Your task to perform on an android device: make emails show in primary in the gmail app Image 0: 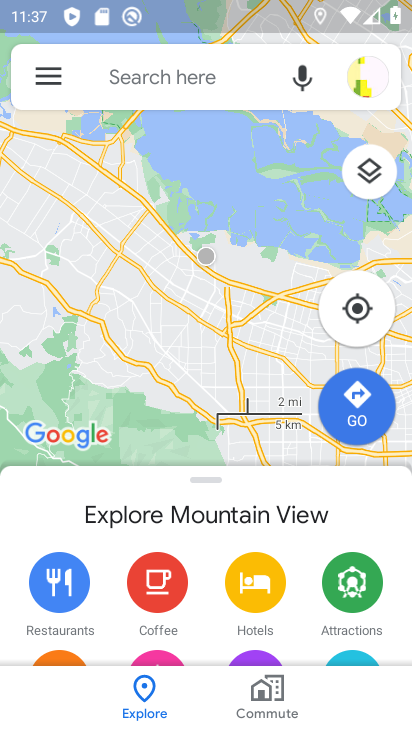
Step 0: press home button
Your task to perform on an android device: make emails show in primary in the gmail app Image 1: 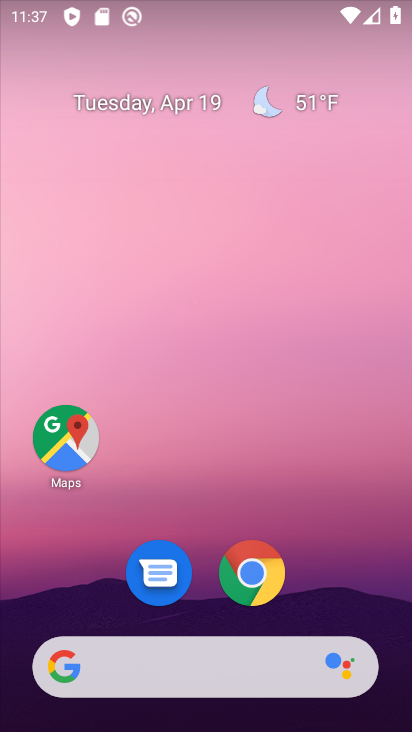
Step 1: drag from (338, 605) to (299, 143)
Your task to perform on an android device: make emails show in primary in the gmail app Image 2: 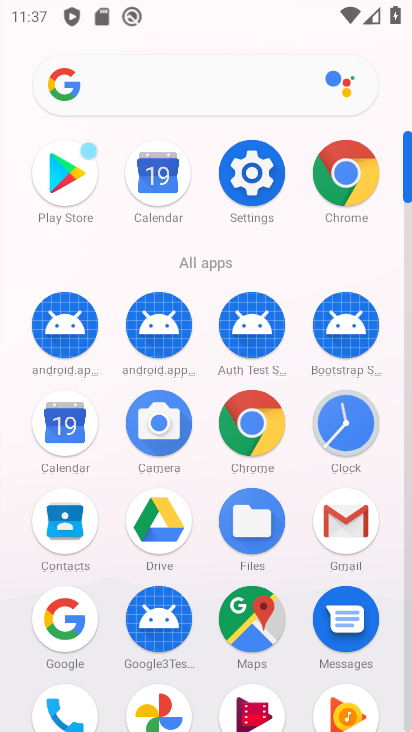
Step 2: click (333, 534)
Your task to perform on an android device: make emails show in primary in the gmail app Image 3: 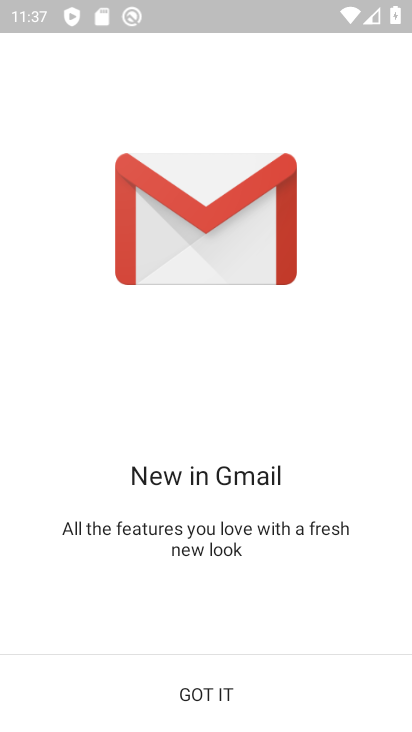
Step 3: click (188, 693)
Your task to perform on an android device: make emails show in primary in the gmail app Image 4: 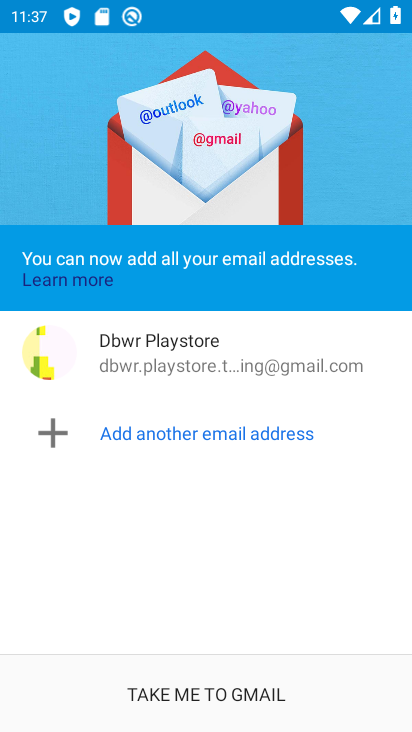
Step 4: click (188, 693)
Your task to perform on an android device: make emails show in primary in the gmail app Image 5: 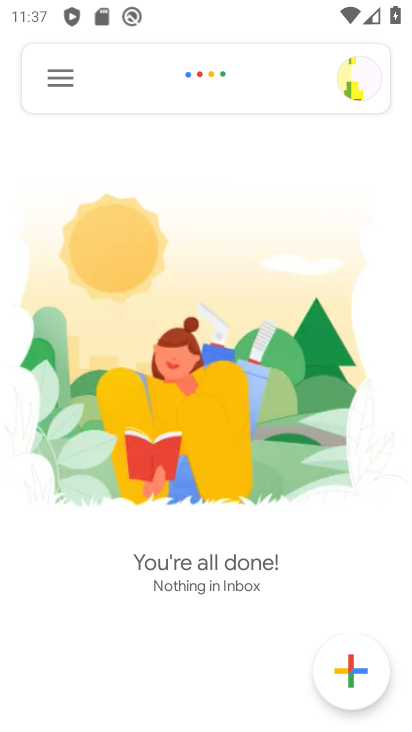
Step 5: click (52, 78)
Your task to perform on an android device: make emails show in primary in the gmail app Image 6: 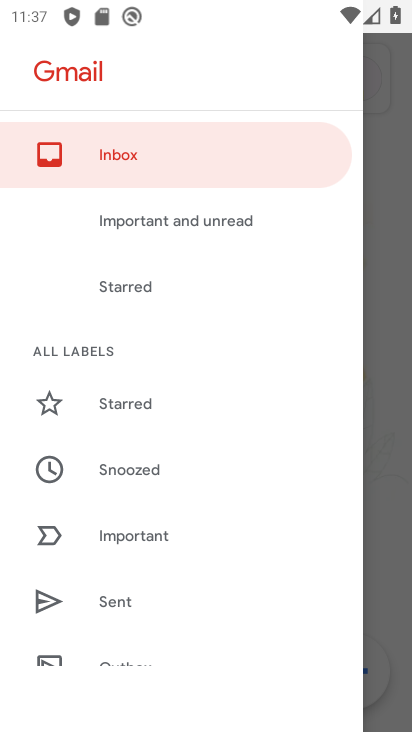
Step 6: drag from (134, 603) to (125, 210)
Your task to perform on an android device: make emails show in primary in the gmail app Image 7: 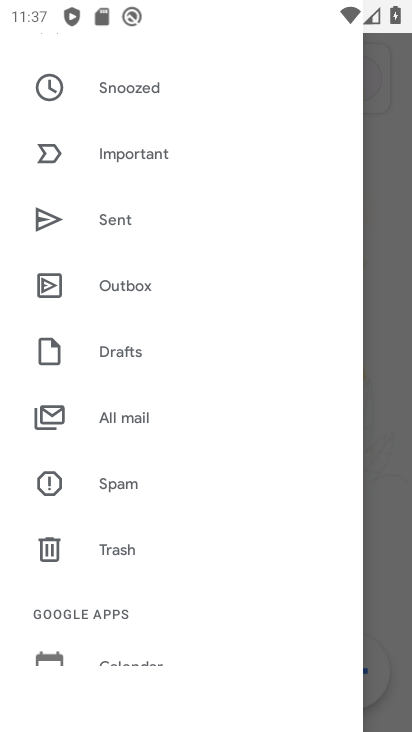
Step 7: drag from (103, 604) to (114, 184)
Your task to perform on an android device: make emails show in primary in the gmail app Image 8: 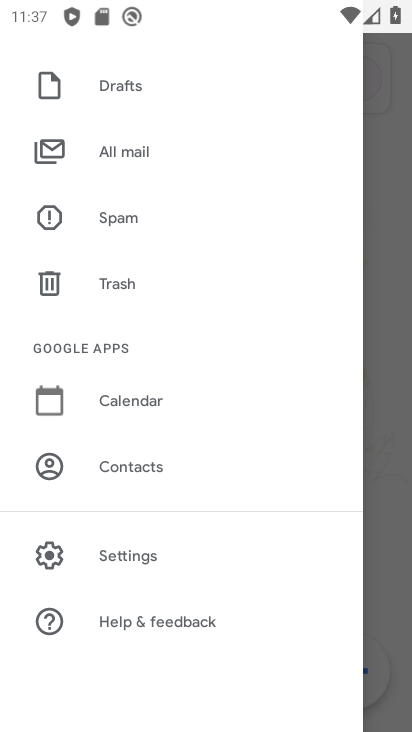
Step 8: click (118, 559)
Your task to perform on an android device: make emails show in primary in the gmail app Image 9: 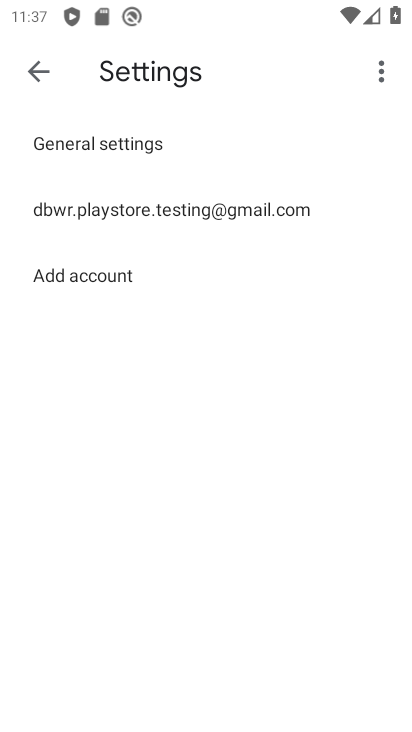
Step 9: click (93, 211)
Your task to perform on an android device: make emails show in primary in the gmail app Image 10: 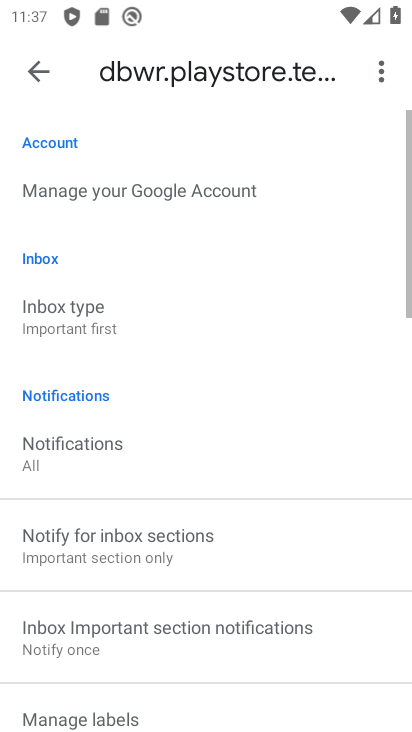
Step 10: click (103, 331)
Your task to perform on an android device: make emails show in primary in the gmail app Image 11: 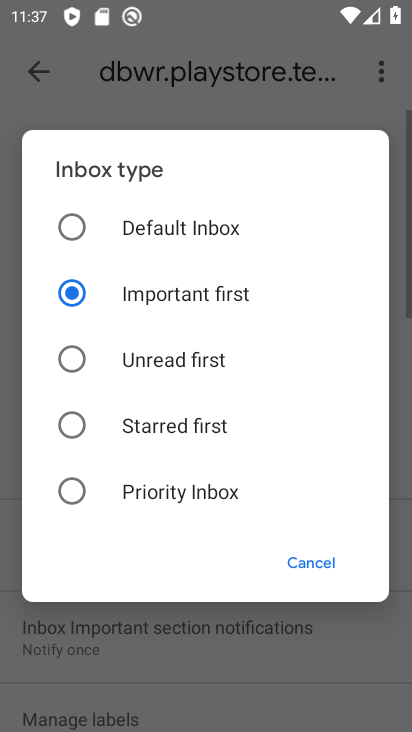
Step 11: click (171, 234)
Your task to perform on an android device: make emails show in primary in the gmail app Image 12: 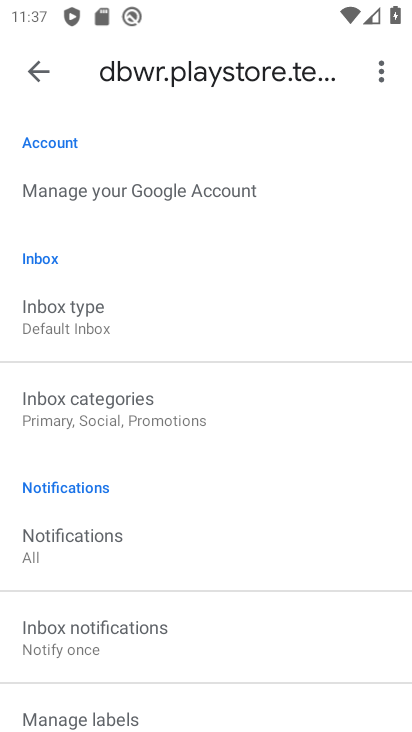
Step 12: press back button
Your task to perform on an android device: make emails show in primary in the gmail app Image 13: 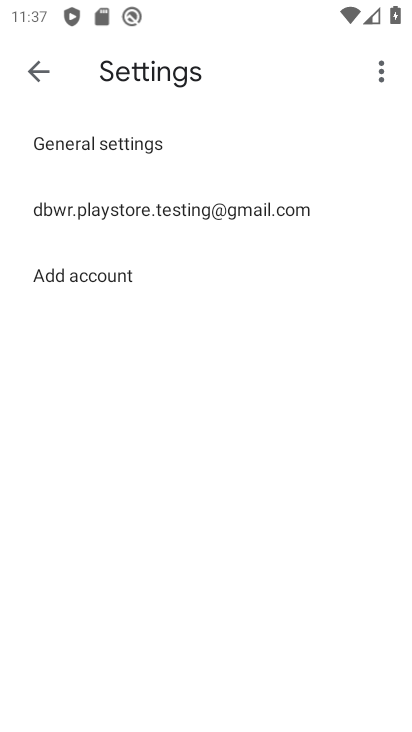
Step 13: press back button
Your task to perform on an android device: make emails show in primary in the gmail app Image 14: 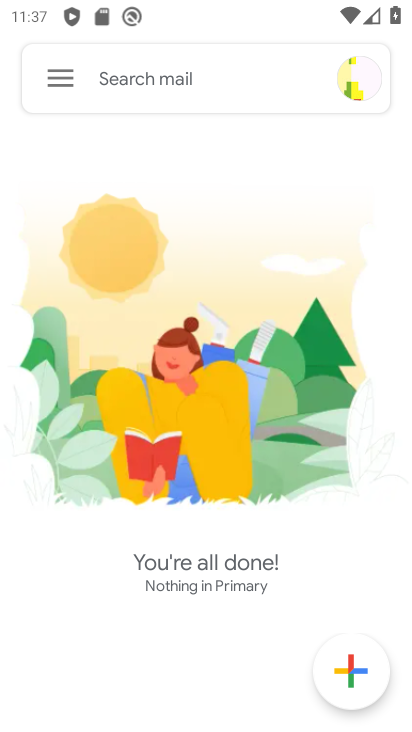
Step 14: click (59, 82)
Your task to perform on an android device: make emails show in primary in the gmail app Image 15: 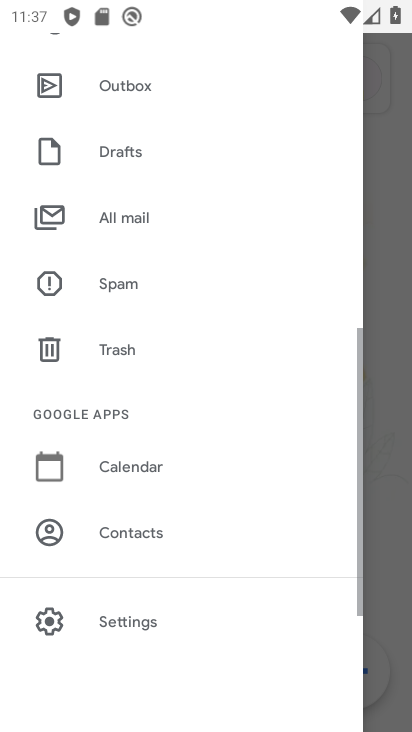
Step 15: drag from (222, 217) to (246, 610)
Your task to perform on an android device: make emails show in primary in the gmail app Image 16: 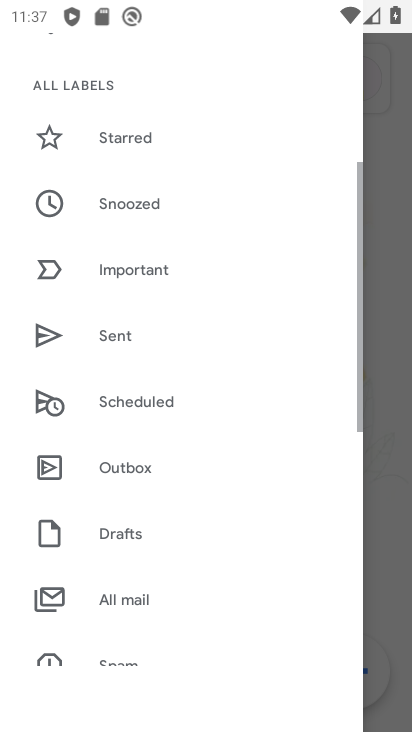
Step 16: drag from (216, 207) to (258, 670)
Your task to perform on an android device: make emails show in primary in the gmail app Image 17: 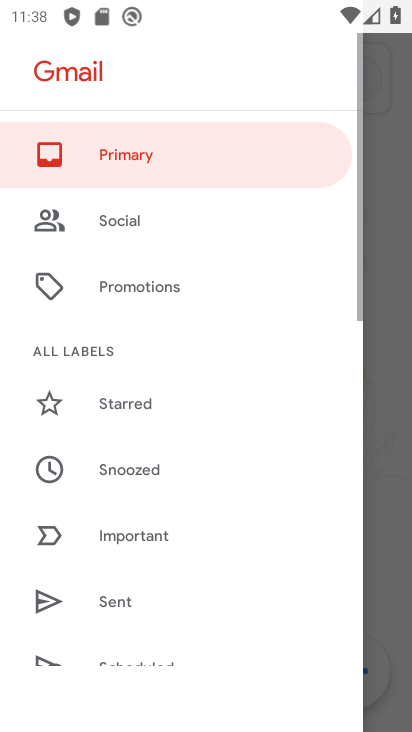
Step 17: click (178, 155)
Your task to perform on an android device: make emails show in primary in the gmail app Image 18: 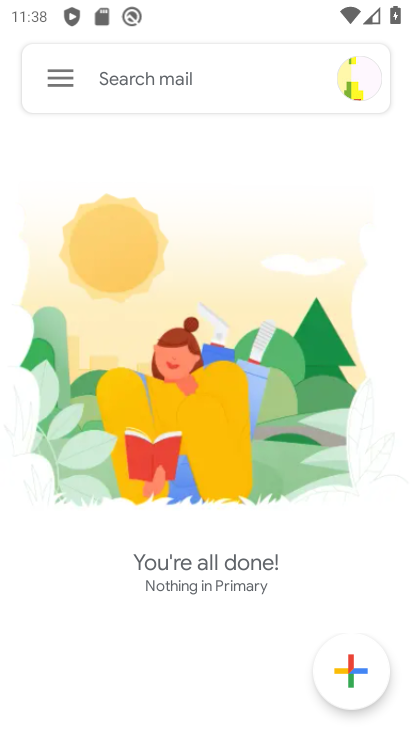
Step 18: task complete